Your task to perform on an android device: open app "Flipkart Online Shopping App" Image 0: 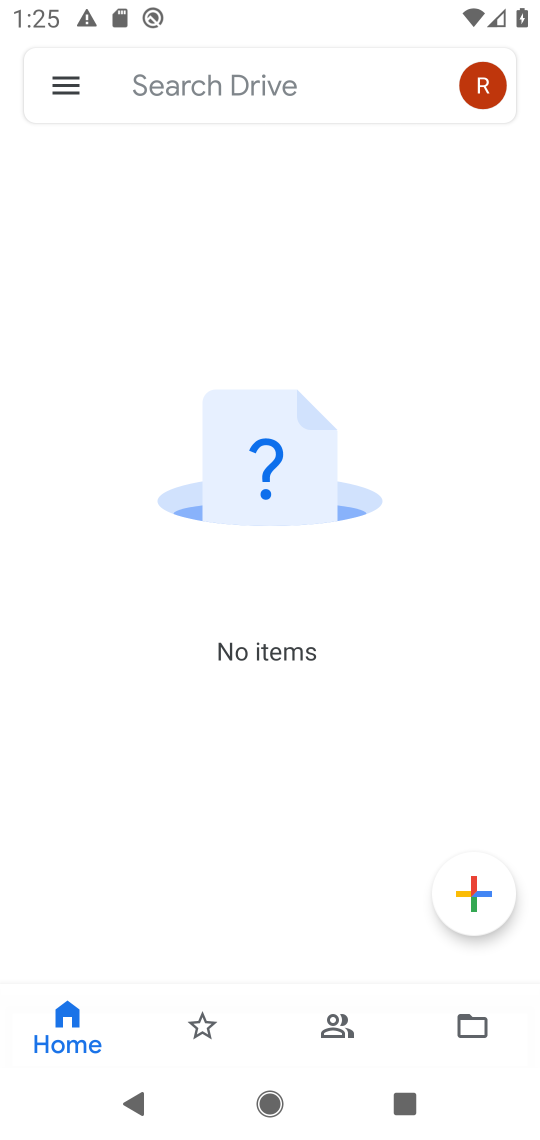
Step 0: click (206, 101)
Your task to perform on an android device: open app "Flipkart Online Shopping App" Image 1: 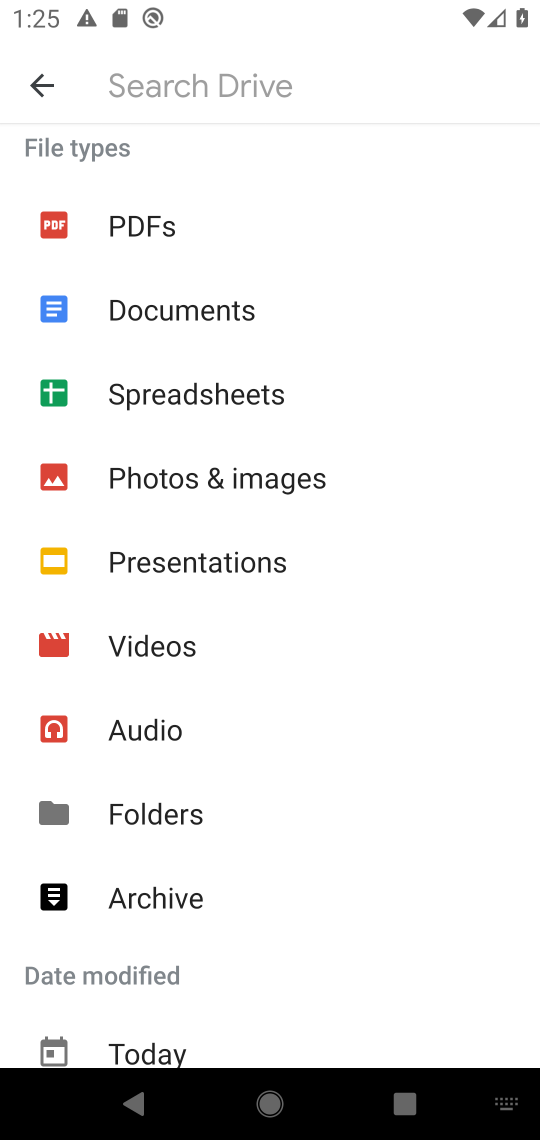
Step 1: press back button
Your task to perform on an android device: open app "Flipkart Online Shopping App" Image 2: 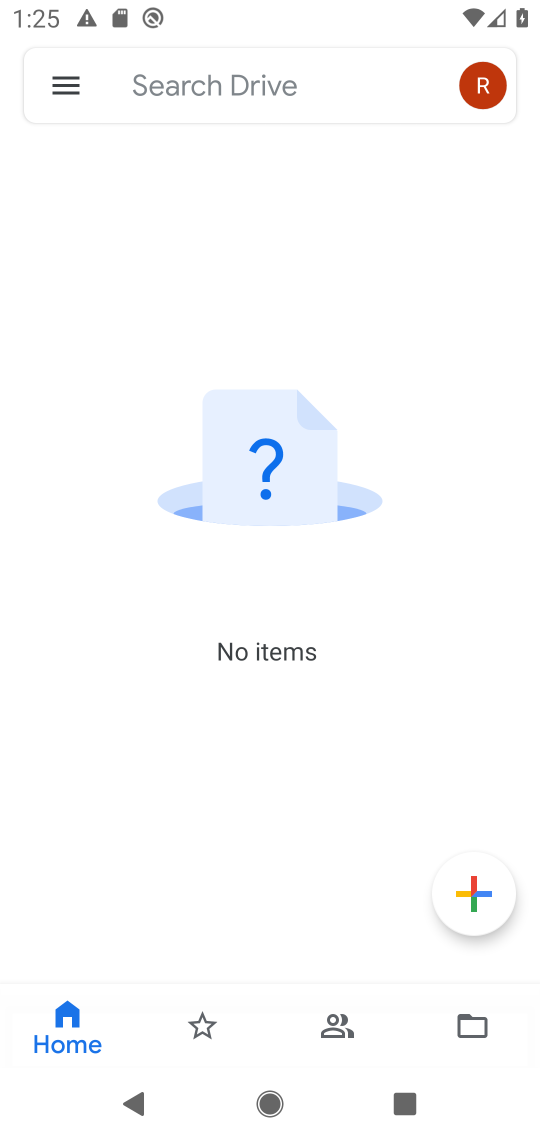
Step 2: press back button
Your task to perform on an android device: open app "Flipkart Online Shopping App" Image 3: 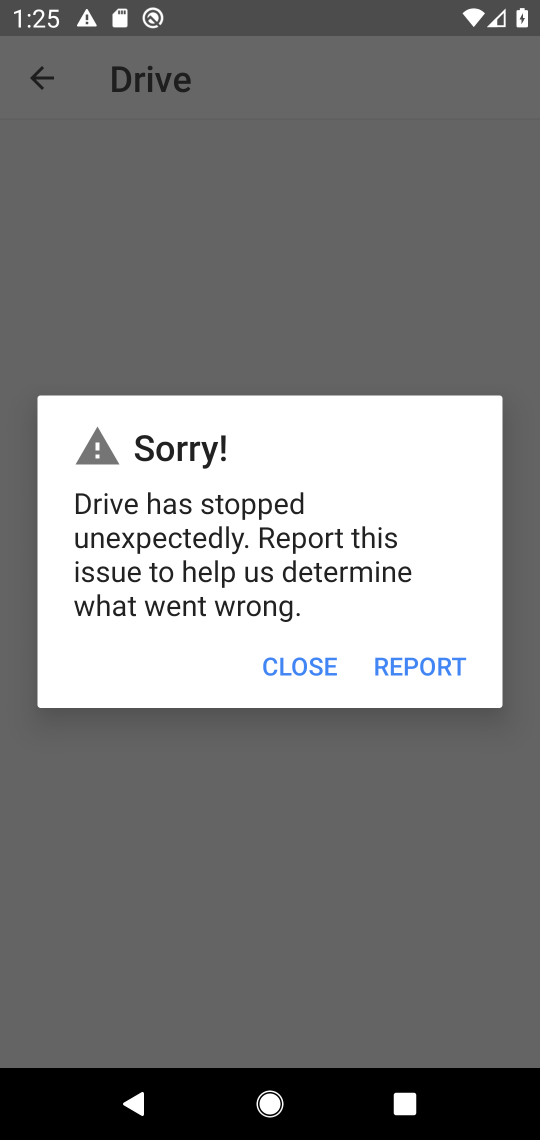
Step 3: press home button
Your task to perform on an android device: open app "Flipkart Online Shopping App" Image 4: 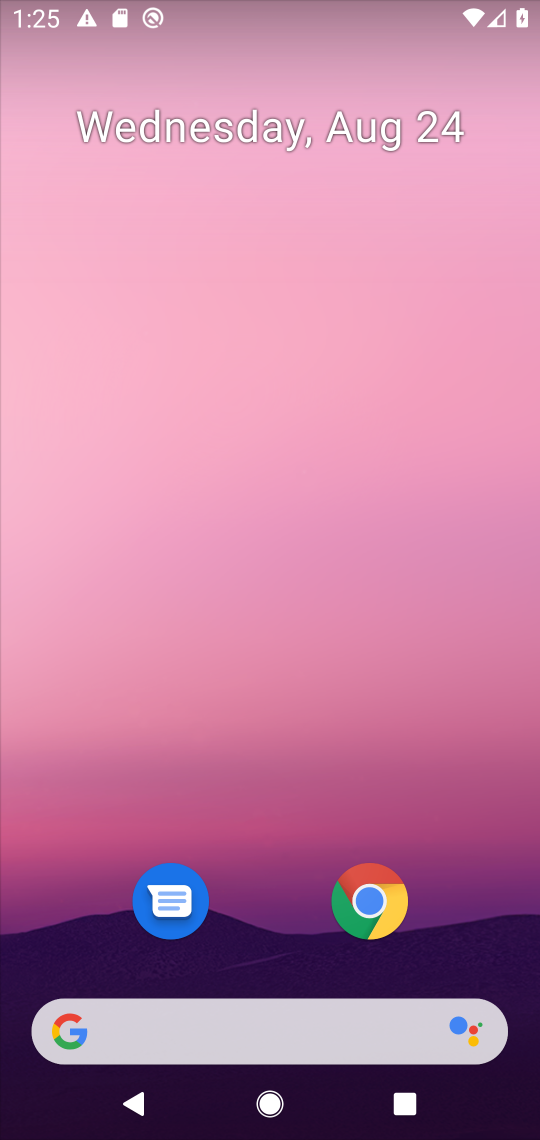
Step 4: drag from (269, 910) to (341, 95)
Your task to perform on an android device: open app "Flipkart Online Shopping App" Image 5: 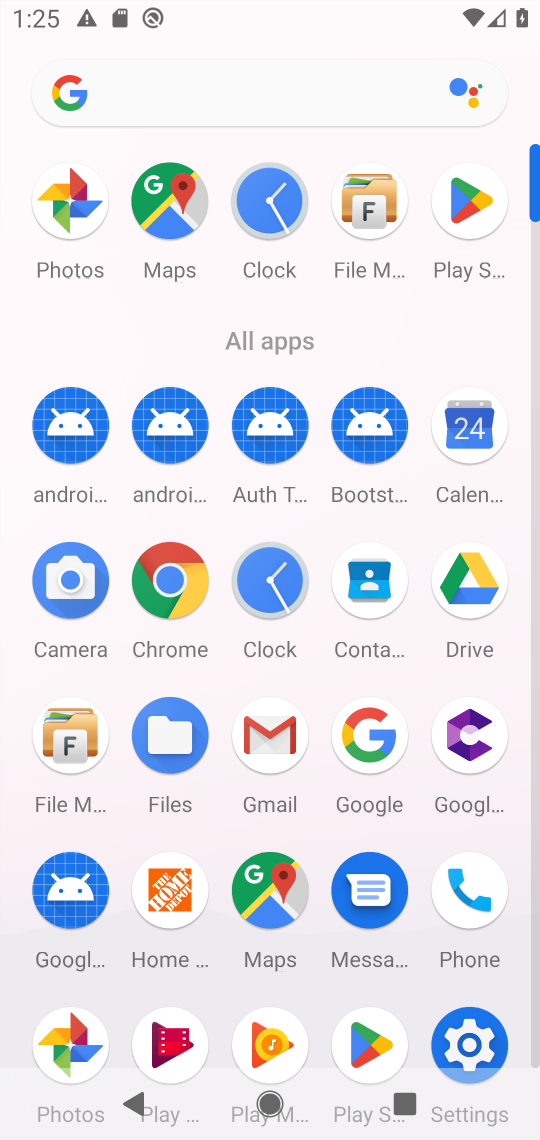
Step 5: click (478, 213)
Your task to perform on an android device: open app "Flipkart Online Shopping App" Image 6: 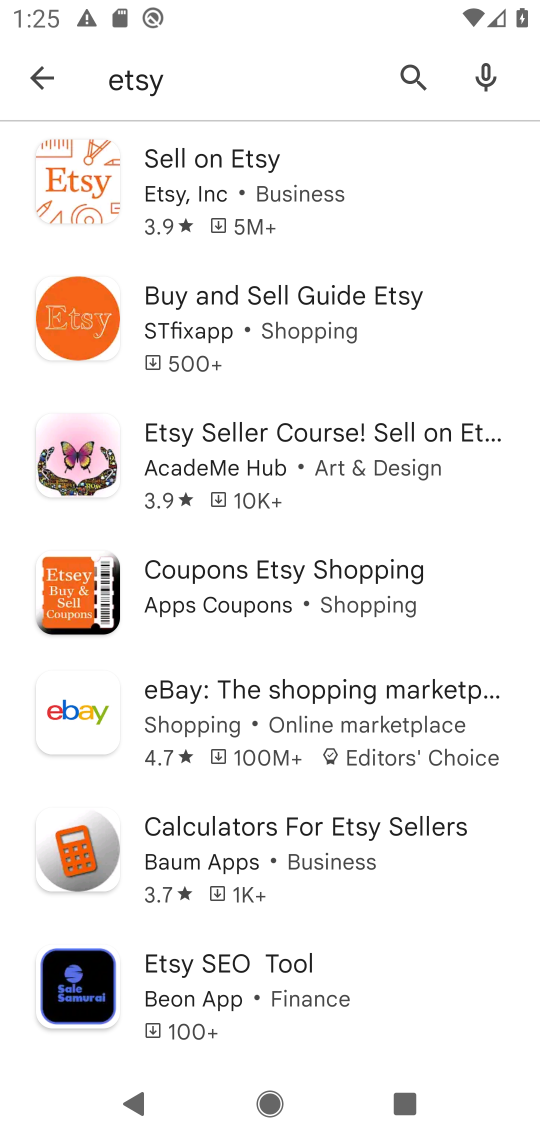
Step 6: click (419, 84)
Your task to perform on an android device: open app "Flipkart Online Shopping App" Image 7: 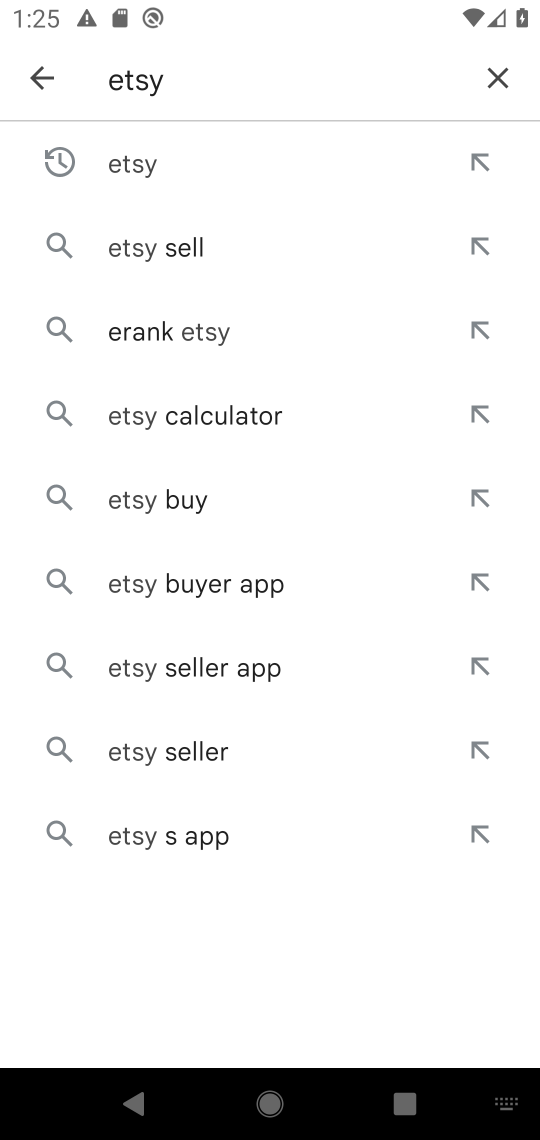
Step 7: click (490, 63)
Your task to perform on an android device: open app "Flipkart Online Shopping App" Image 8: 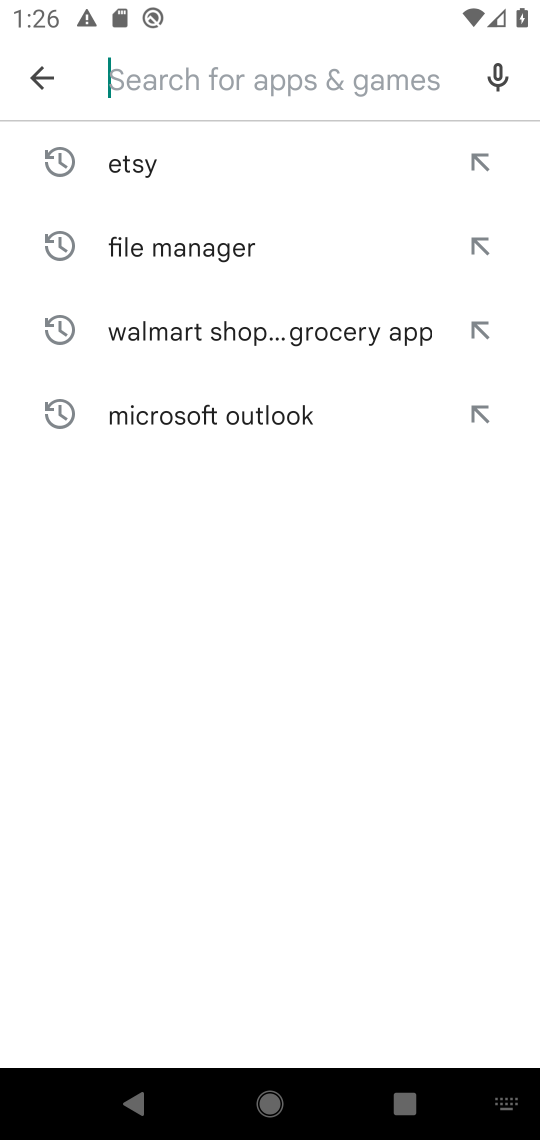
Step 8: click (180, 85)
Your task to perform on an android device: open app "Flipkart Online Shopping App" Image 9: 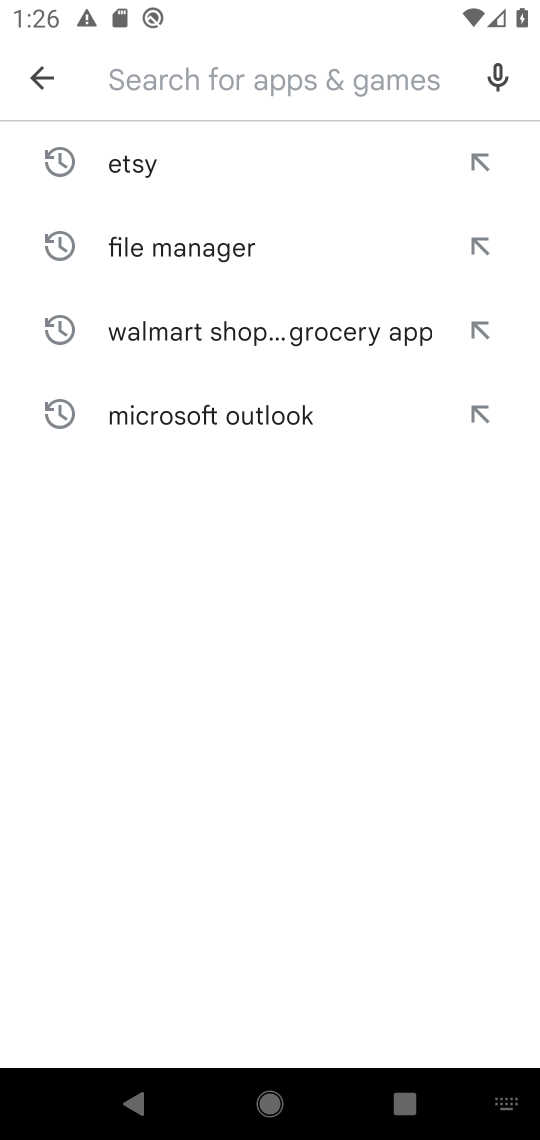
Step 9: type "Flipkart Online Shopping App"
Your task to perform on an android device: open app "Flipkart Online Shopping App" Image 10: 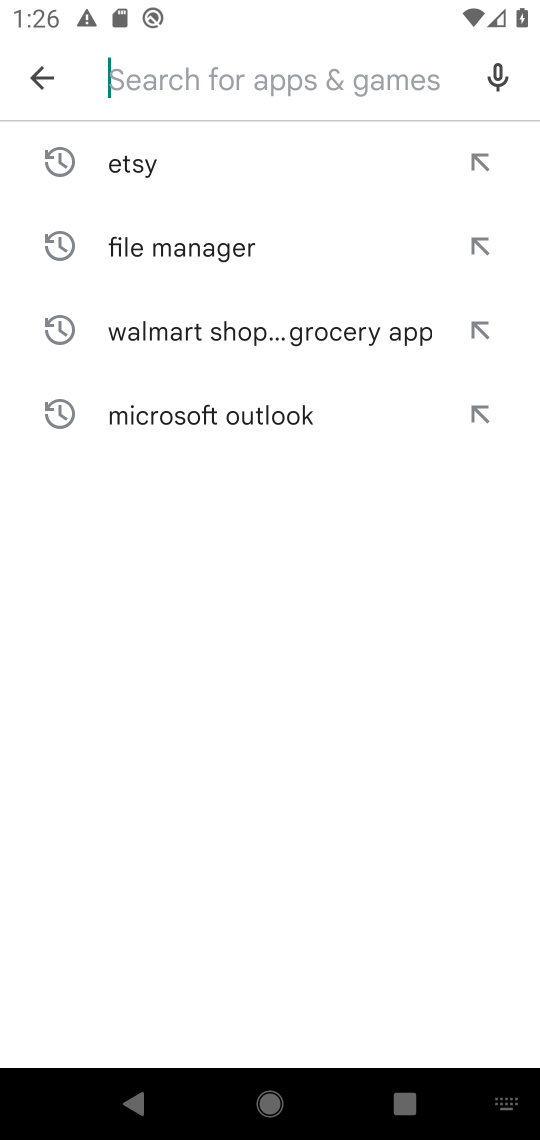
Step 10: click (222, 749)
Your task to perform on an android device: open app "Flipkart Online Shopping App" Image 11: 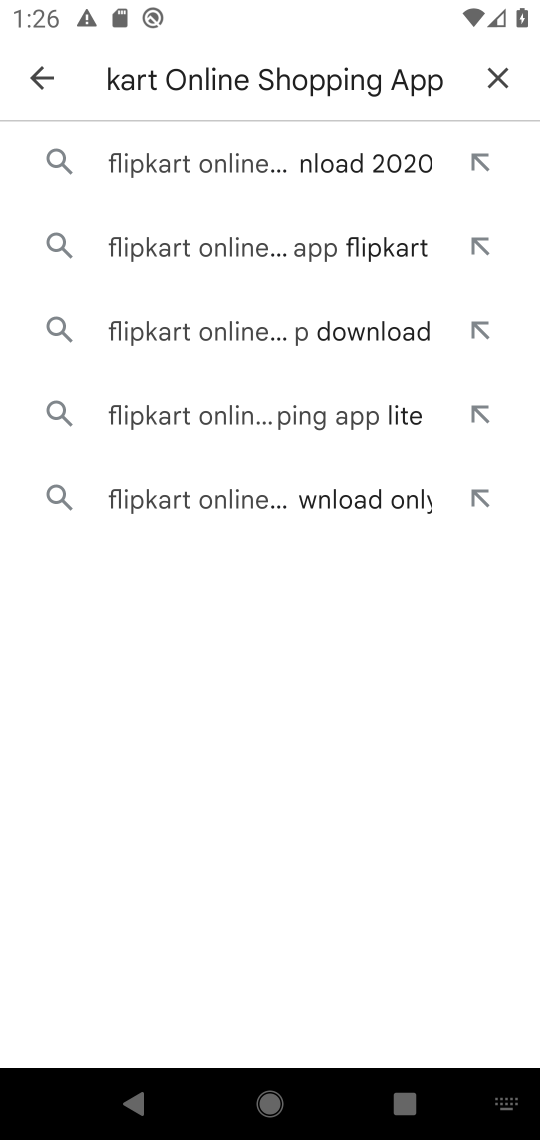
Step 11: click (230, 161)
Your task to perform on an android device: open app "Flipkart Online Shopping App" Image 12: 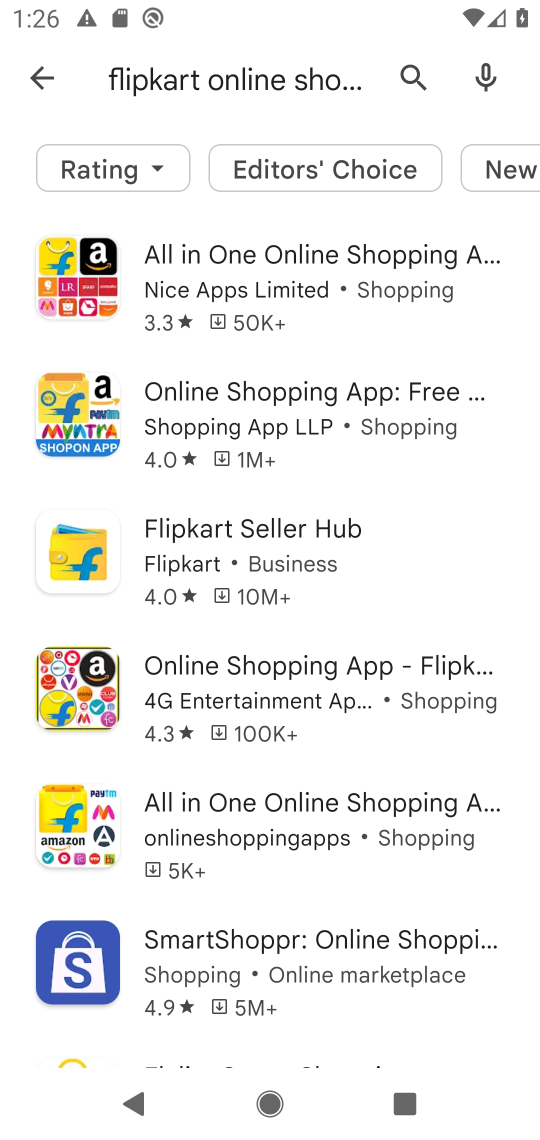
Step 12: task complete